Your task to perform on an android device: set the timer Image 0: 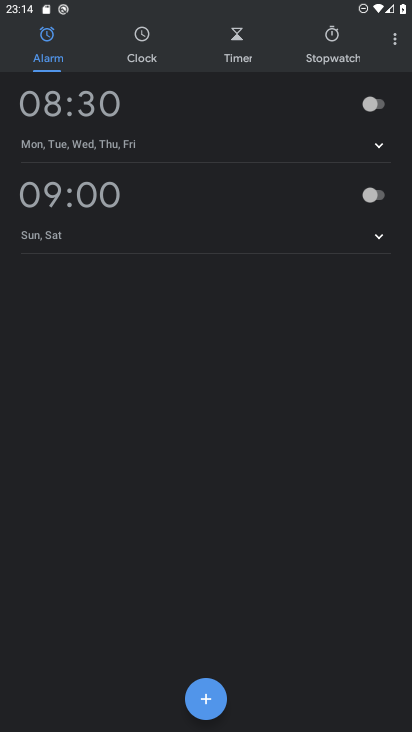
Step 0: click (239, 50)
Your task to perform on an android device: set the timer Image 1: 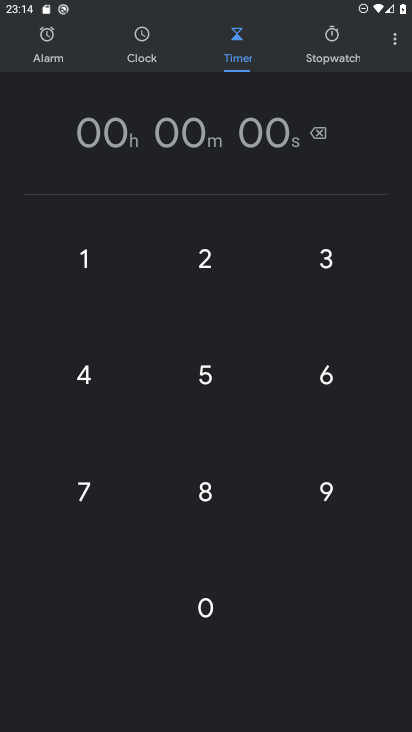
Step 1: click (332, 493)
Your task to perform on an android device: set the timer Image 2: 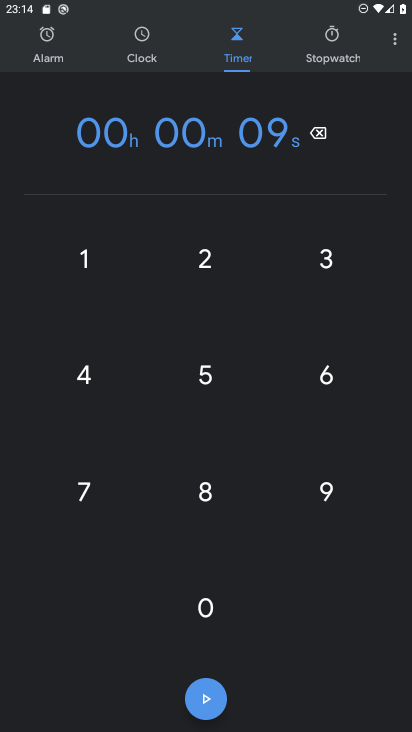
Step 2: click (210, 610)
Your task to perform on an android device: set the timer Image 3: 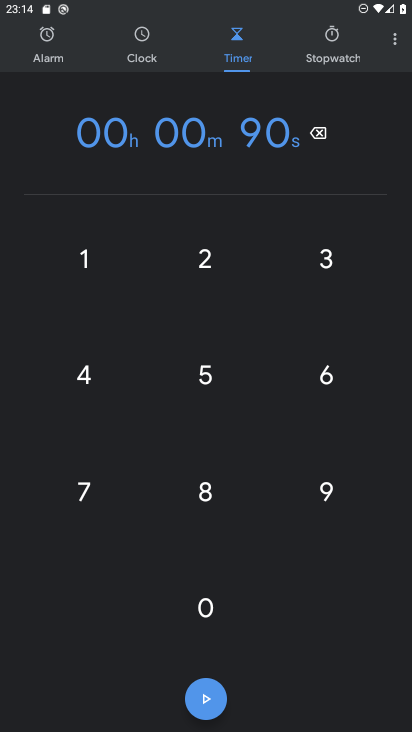
Step 3: click (212, 703)
Your task to perform on an android device: set the timer Image 4: 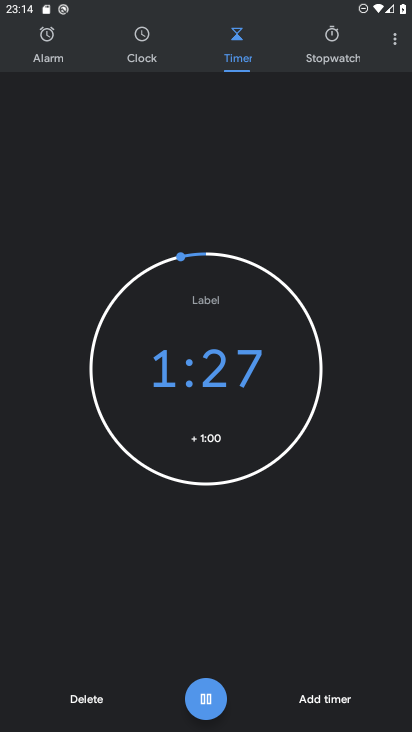
Step 4: task complete